Your task to perform on an android device: move an email to a new category in the gmail app Image 0: 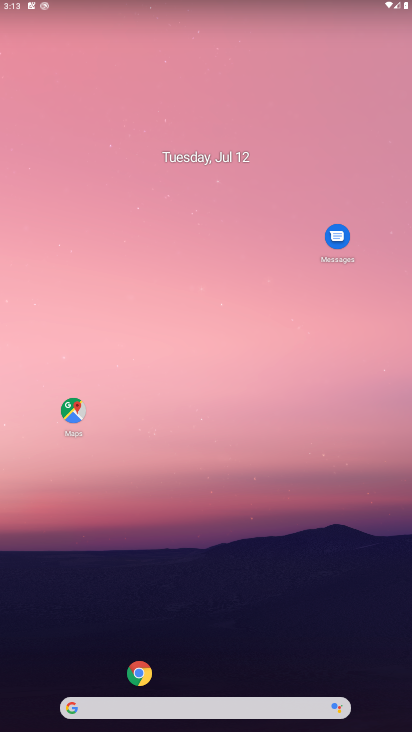
Step 0: drag from (63, 552) to (151, 164)
Your task to perform on an android device: move an email to a new category in the gmail app Image 1: 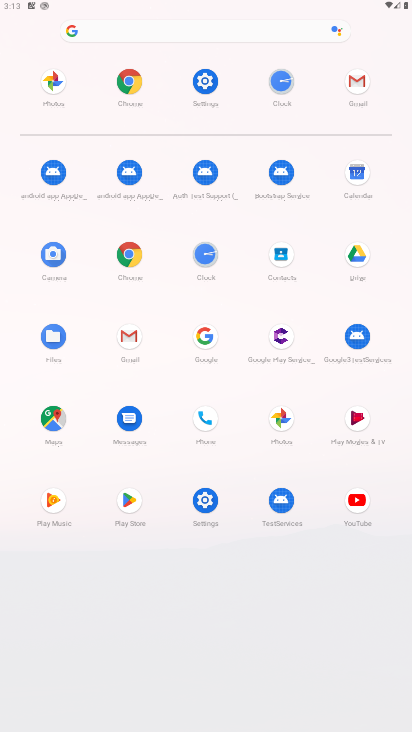
Step 1: click (134, 343)
Your task to perform on an android device: move an email to a new category in the gmail app Image 2: 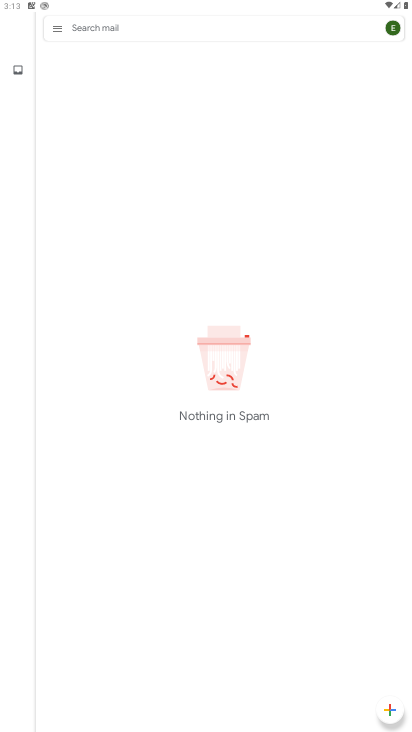
Step 2: click (46, 34)
Your task to perform on an android device: move an email to a new category in the gmail app Image 3: 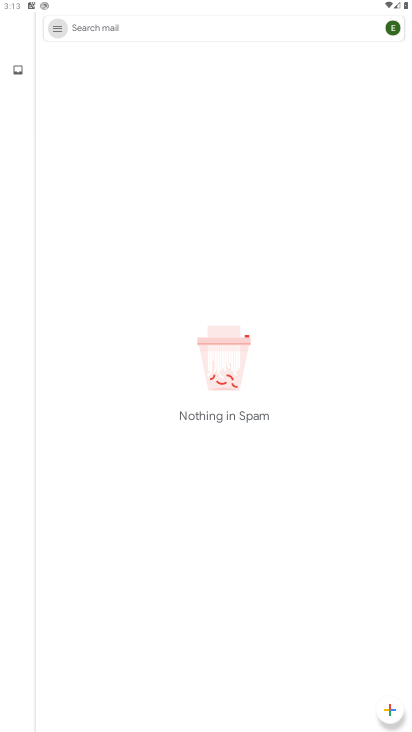
Step 3: click (48, 32)
Your task to perform on an android device: move an email to a new category in the gmail app Image 4: 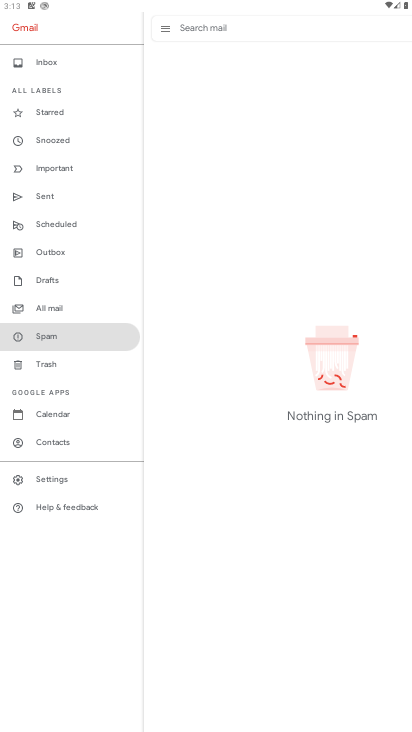
Step 4: click (42, 58)
Your task to perform on an android device: move an email to a new category in the gmail app Image 5: 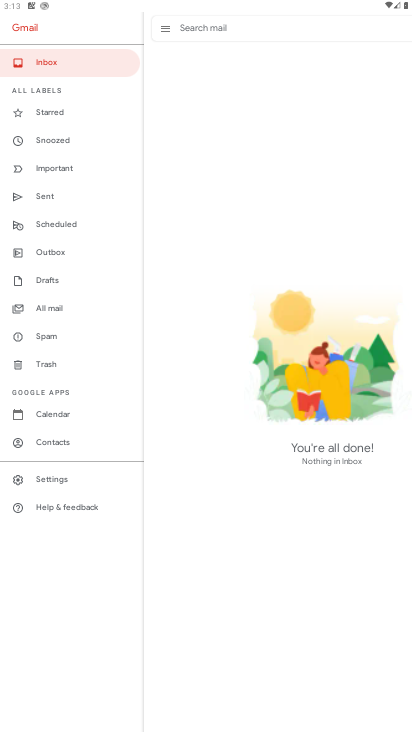
Step 5: task complete